Your task to perform on an android device: Show the shopping cart on ebay. Search for bose soundsport free on ebay, select the first entry, add it to the cart, then select checkout. Image 0: 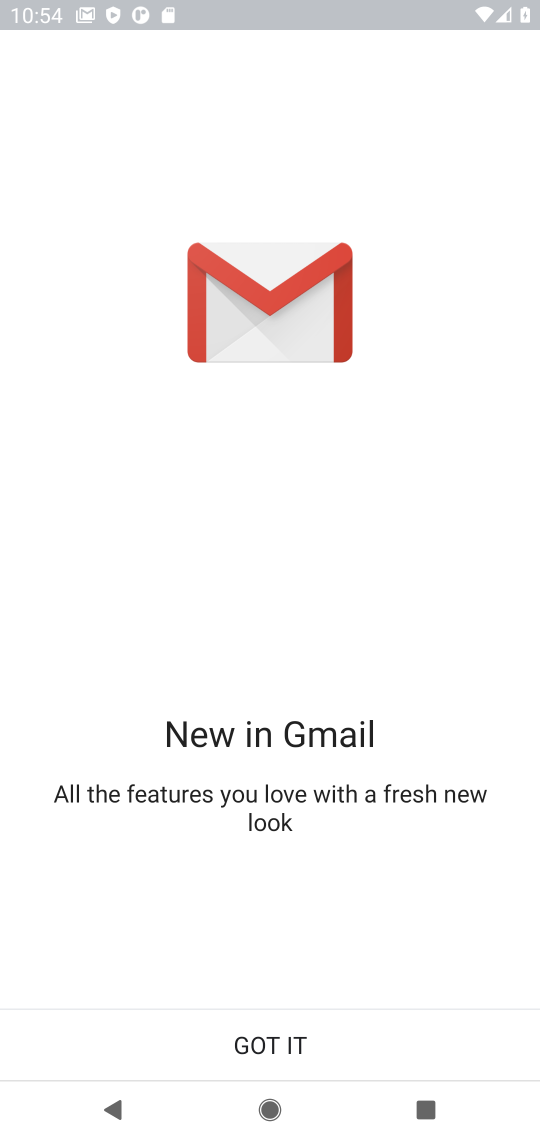
Step 0: task complete